Your task to perform on an android device: remove spam from my inbox in the gmail app Image 0: 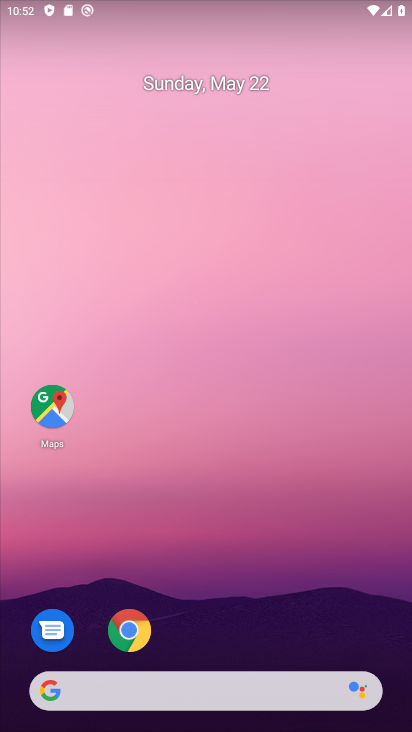
Step 0: drag from (383, 601) to (361, 5)
Your task to perform on an android device: remove spam from my inbox in the gmail app Image 1: 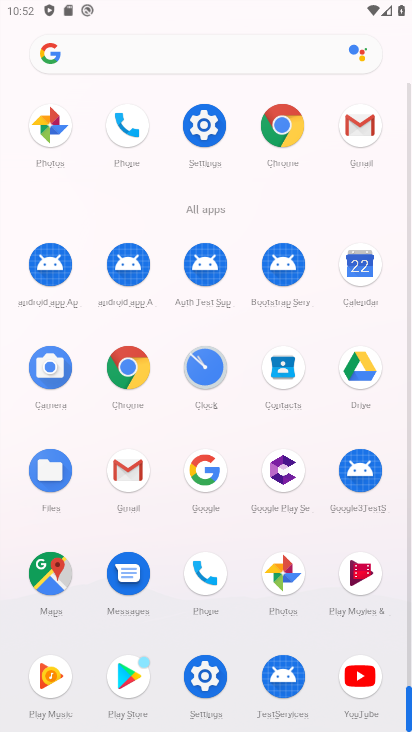
Step 1: click (132, 470)
Your task to perform on an android device: remove spam from my inbox in the gmail app Image 2: 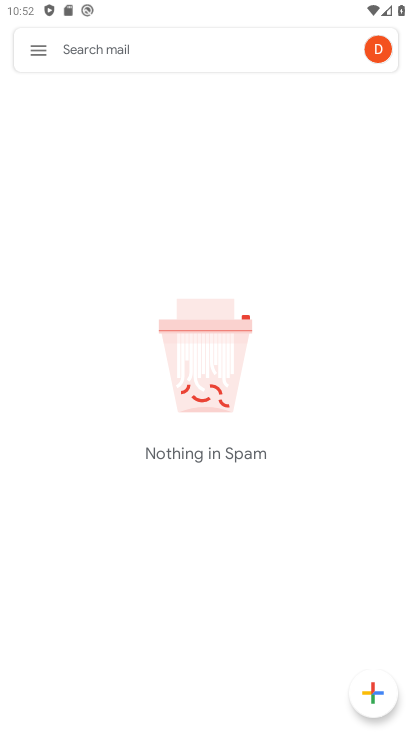
Step 2: click (26, 54)
Your task to perform on an android device: remove spam from my inbox in the gmail app Image 3: 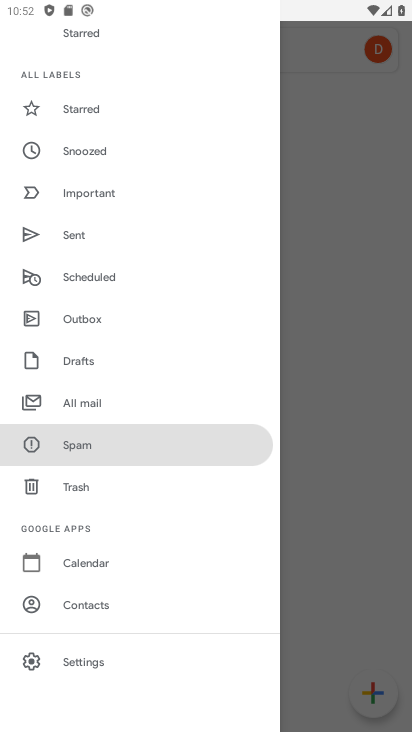
Step 3: drag from (195, 575) to (178, 370)
Your task to perform on an android device: remove spam from my inbox in the gmail app Image 4: 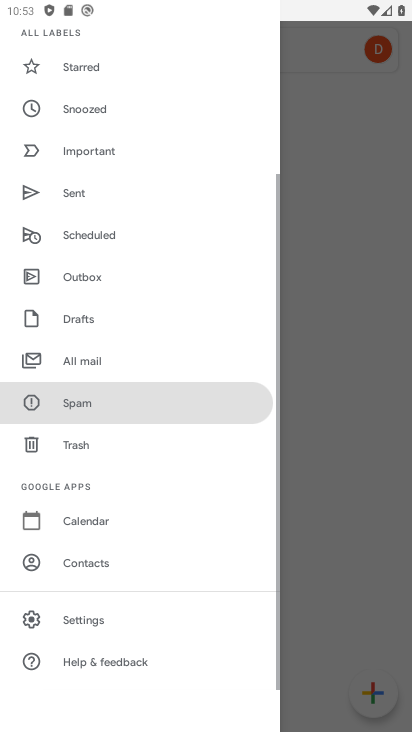
Step 4: drag from (214, 600) to (212, 366)
Your task to perform on an android device: remove spam from my inbox in the gmail app Image 5: 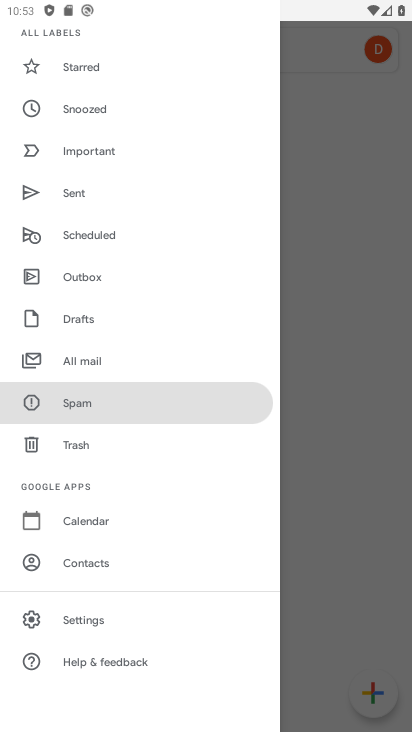
Step 5: drag from (150, 263) to (149, 444)
Your task to perform on an android device: remove spam from my inbox in the gmail app Image 6: 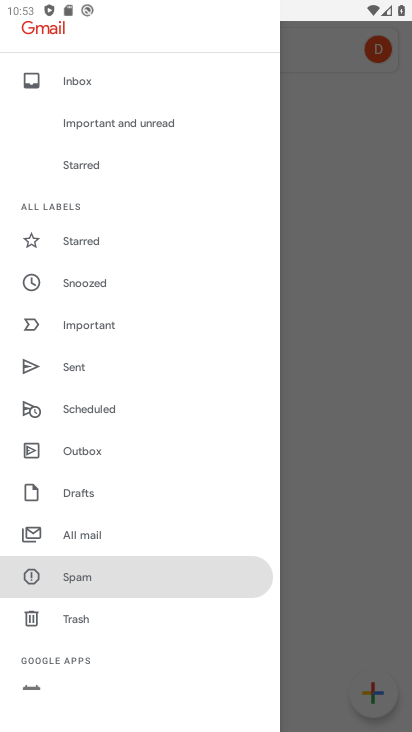
Step 6: drag from (173, 238) to (201, 474)
Your task to perform on an android device: remove spam from my inbox in the gmail app Image 7: 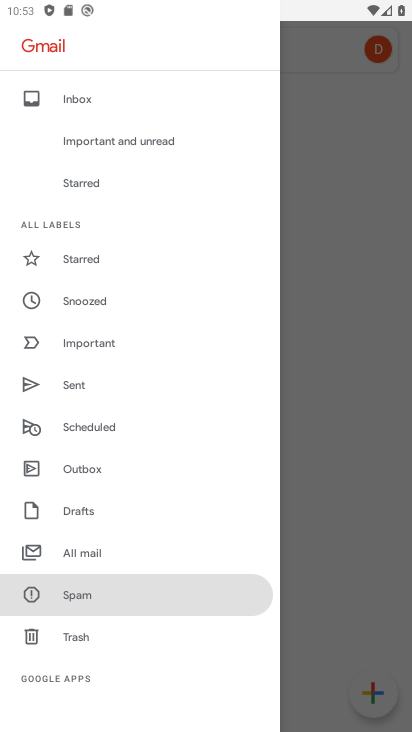
Step 7: click (155, 598)
Your task to perform on an android device: remove spam from my inbox in the gmail app Image 8: 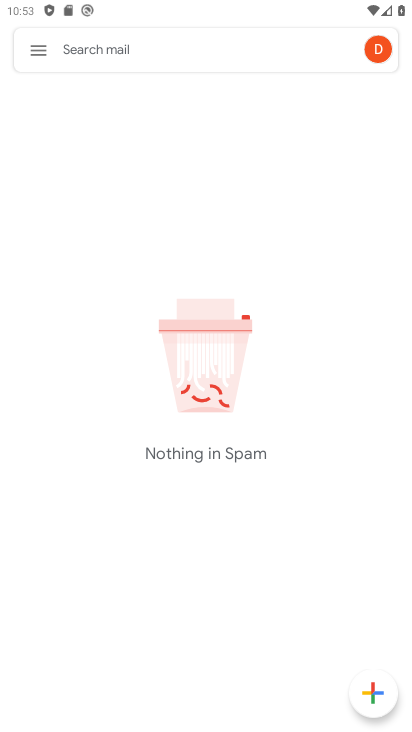
Step 8: task complete